Your task to perform on an android device: empty trash in the gmail app Image 0: 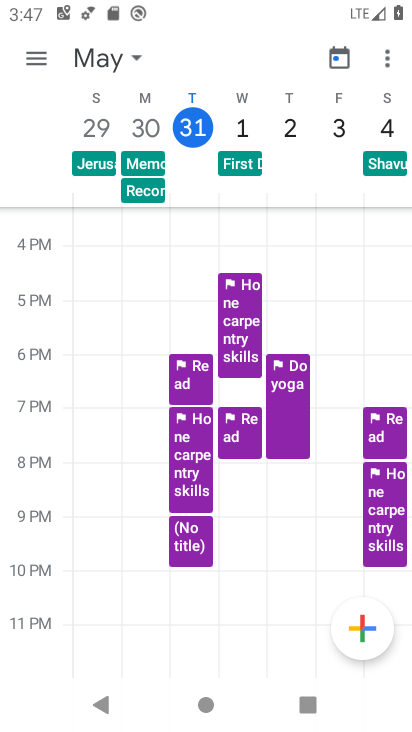
Step 0: press home button
Your task to perform on an android device: empty trash in the gmail app Image 1: 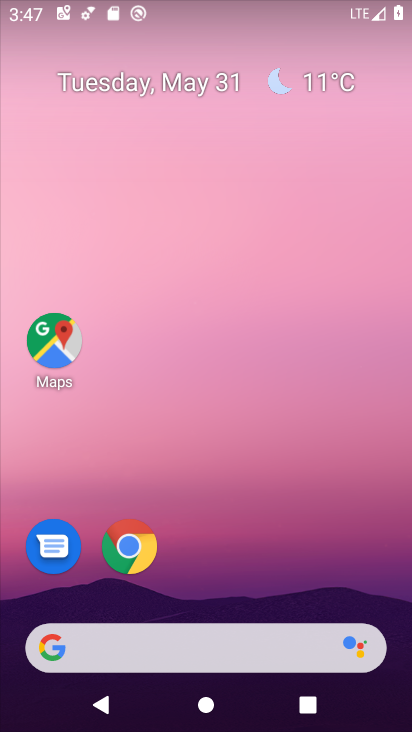
Step 1: drag from (291, 566) to (141, 47)
Your task to perform on an android device: empty trash in the gmail app Image 2: 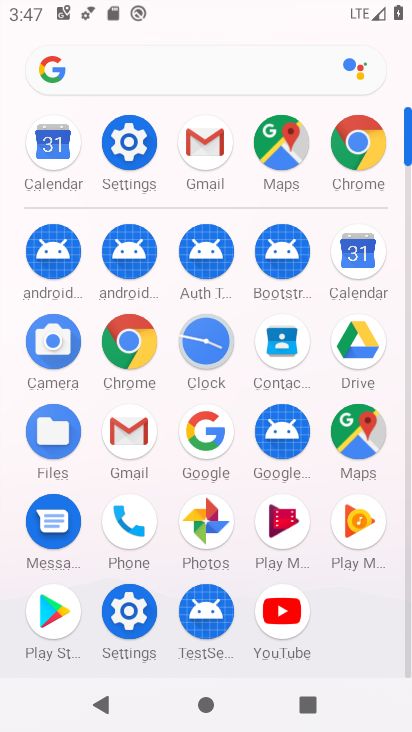
Step 2: click (120, 443)
Your task to perform on an android device: empty trash in the gmail app Image 3: 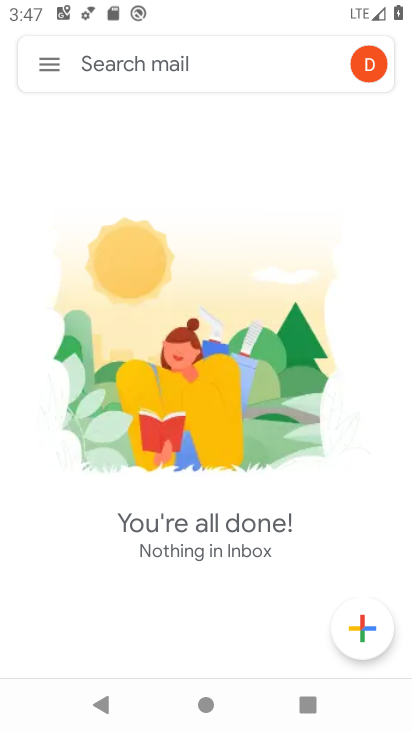
Step 3: click (58, 61)
Your task to perform on an android device: empty trash in the gmail app Image 4: 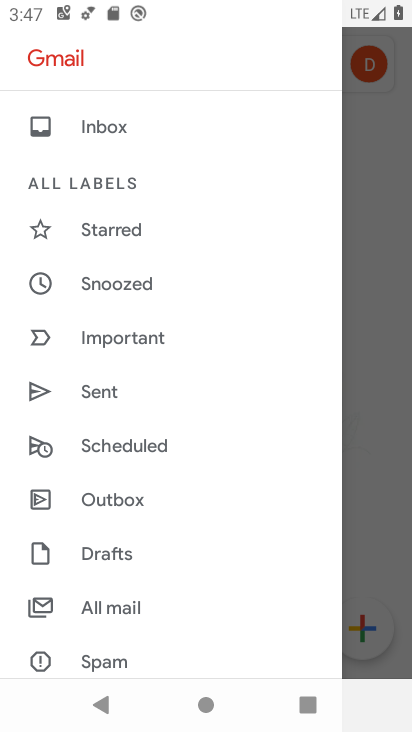
Step 4: drag from (218, 526) to (236, 156)
Your task to perform on an android device: empty trash in the gmail app Image 5: 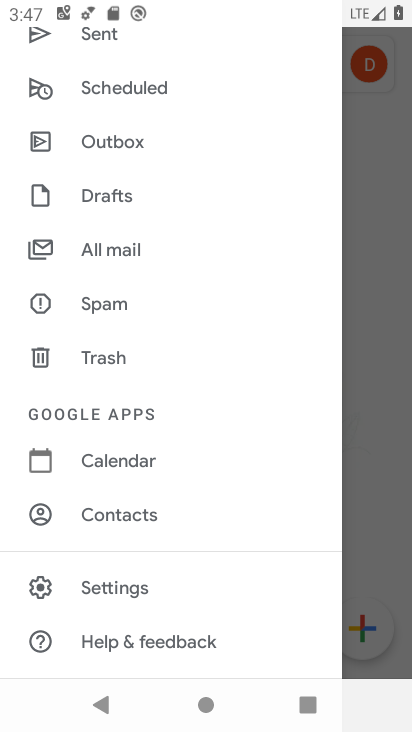
Step 5: click (121, 356)
Your task to perform on an android device: empty trash in the gmail app Image 6: 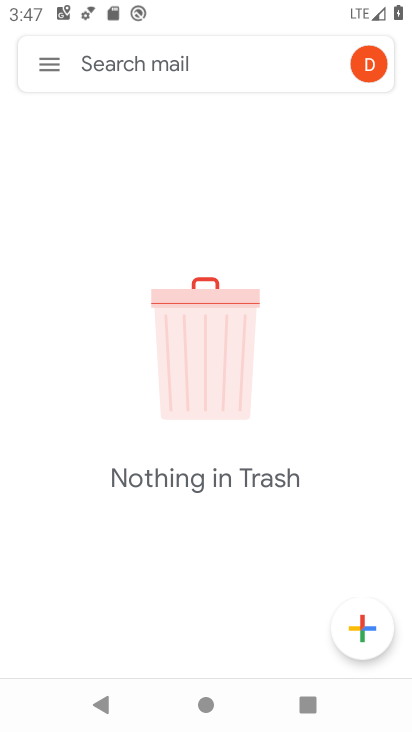
Step 6: task complete